Your task to perform on an android device: Search for seafood restaurants on Google Maps Image 0: 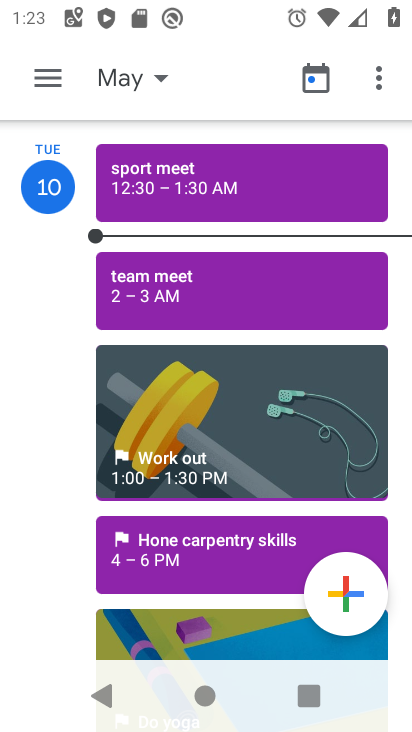
Step 0: press home button
Your task to perform on an android device: Search for seafood restaurants on Google Maps Image 1: 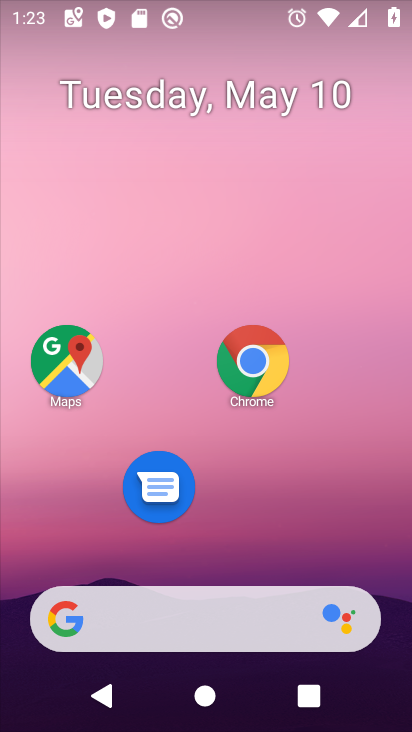
Step 1: click (97, 364)
Your task to perform on an android device: Search for seafood restaurants on Google Maps Image 2: 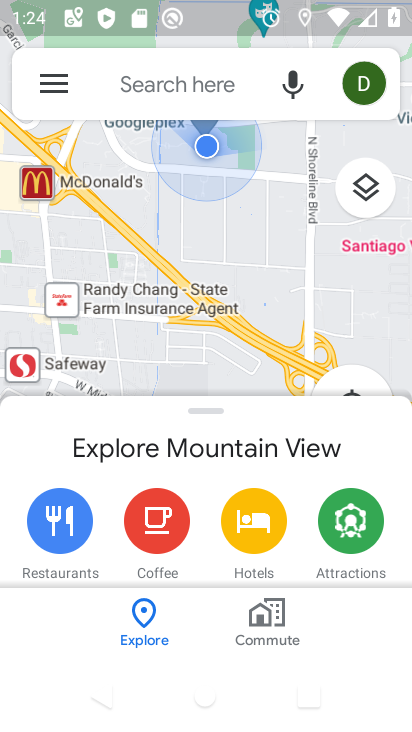
Step 2: click (215, 104)
Your task to perform on an android device: Search for seafood restaurants on Google Maps Image 3: 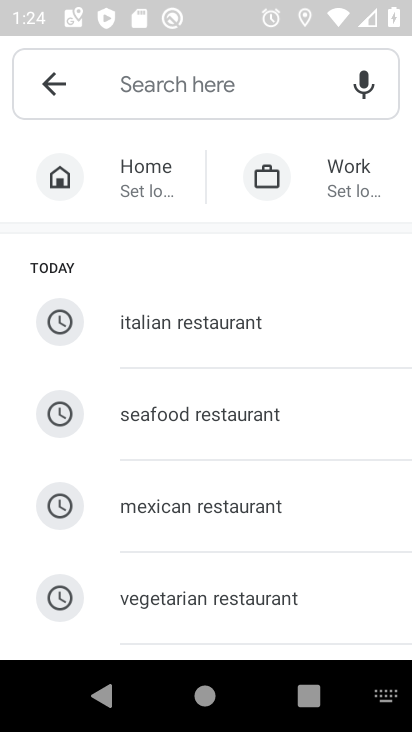
Step 3: click (254, 447)
Your task to perform on an android device: Search for seafood restaurants on Google Maps Image 4: 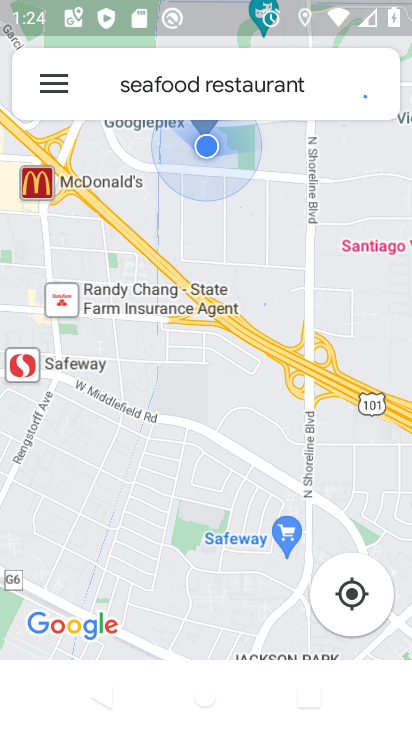
Step 4: task complete